Your task to perform on an android device: turn on sleep mode Image 0: 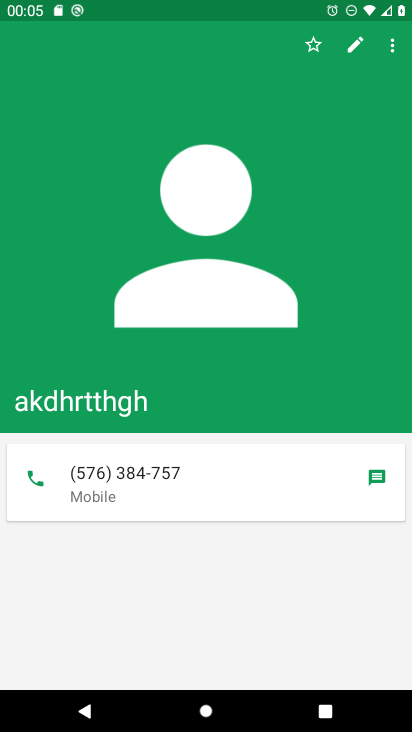
Step 0: press home button
Your task to perform on an android device: turn on sleep mode Image 1: 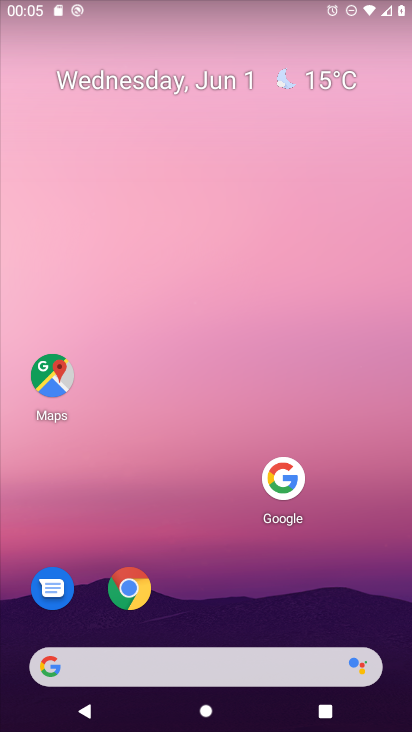
Step 1: drag from (175, 678) to (320, 180)
Your task to perform on an android device: turn on sleep mode Image 2: 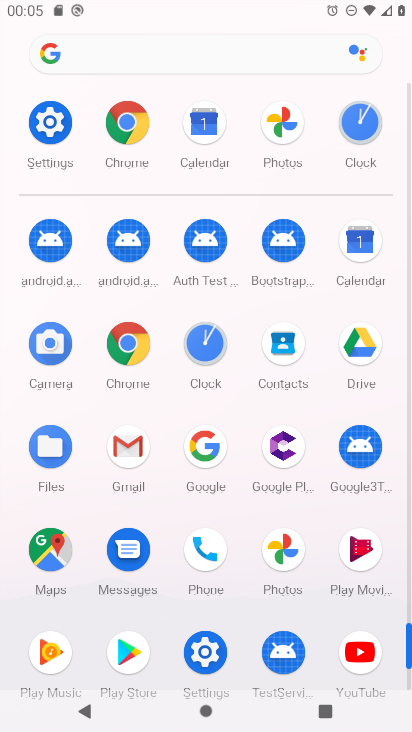
Step 2: click (53, 127)
Your task to perform on an android device: turn on sleep mode Image 3: 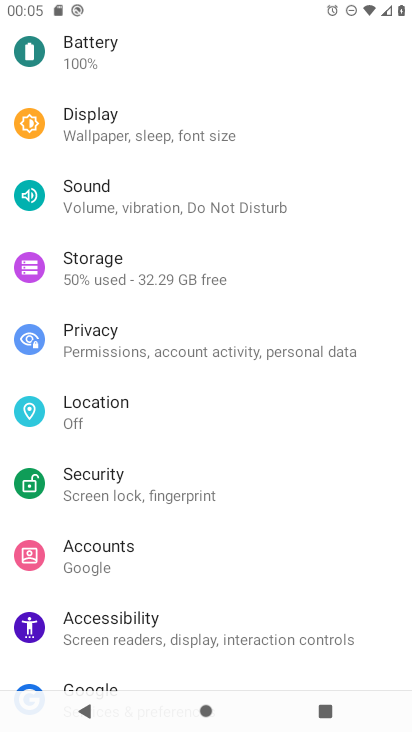
Step 3: click (177, 136)
Your task to perform on an android device: turn on sleep mode Image 4: 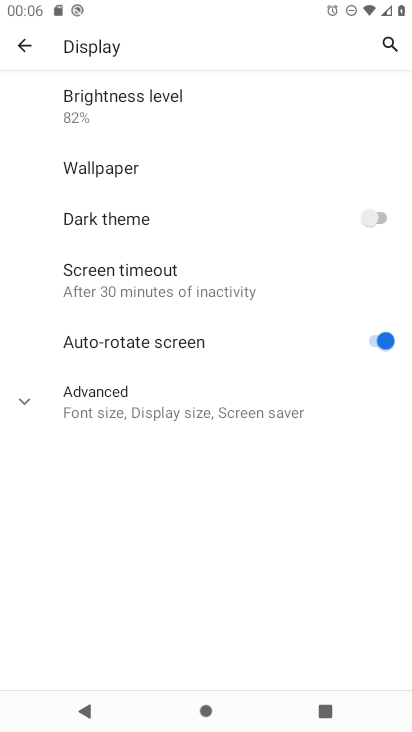
Step 4: task complete